Your task to perform on an android device: turn on improve location accuracy Image 0: 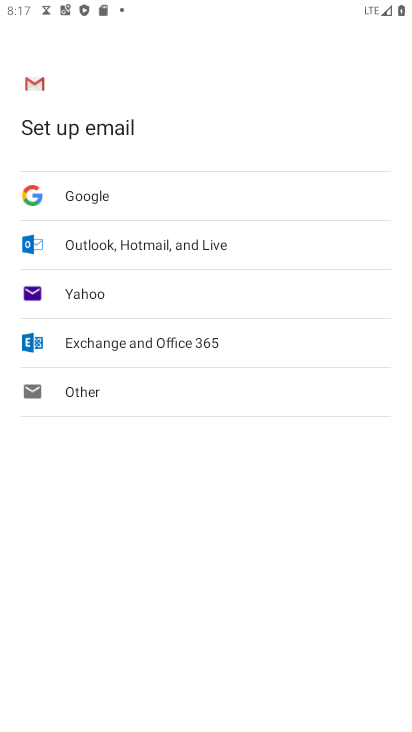
Step 0: press back button
Your task to perform on an android device: turn on improve location accuracy Image 1: 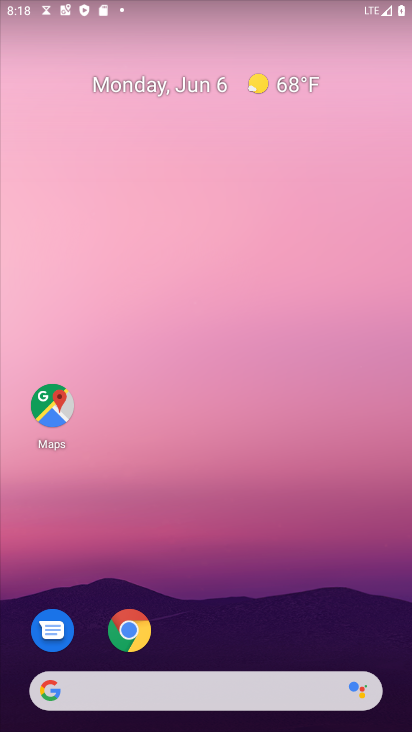
Step 1: drag from (251, 609) to (232, 63)
Your task to perform on an android device: turn on improve location accuracy Image 2: 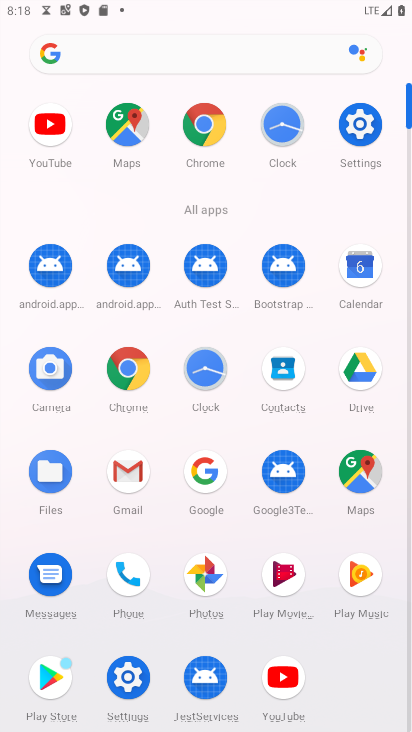
Step 2: click (358, 125)
Your task to perform on an android device: turn on improve location accuracy Image 3: 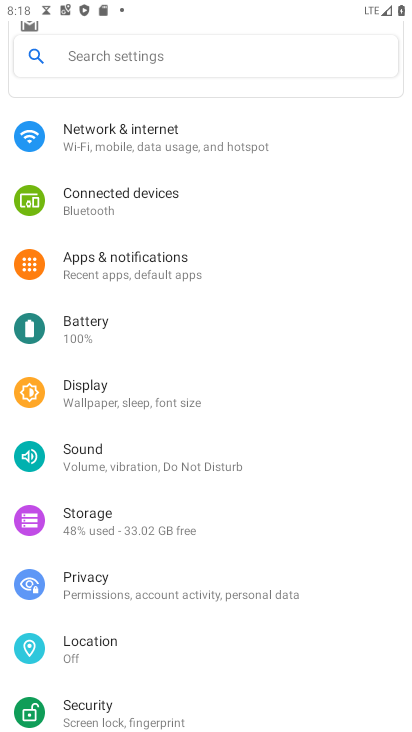
Step 3: drag from (151, 432) to (217, 324)
Your task to perform on an android device: turn on improve location accuracy Image 4: 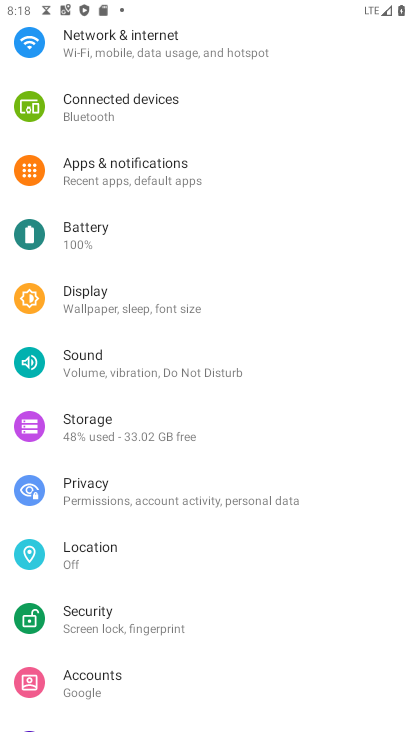
Step 4: click (116, 542)
Your task to perform on an android device: turn on improve location accuracy Image 5: 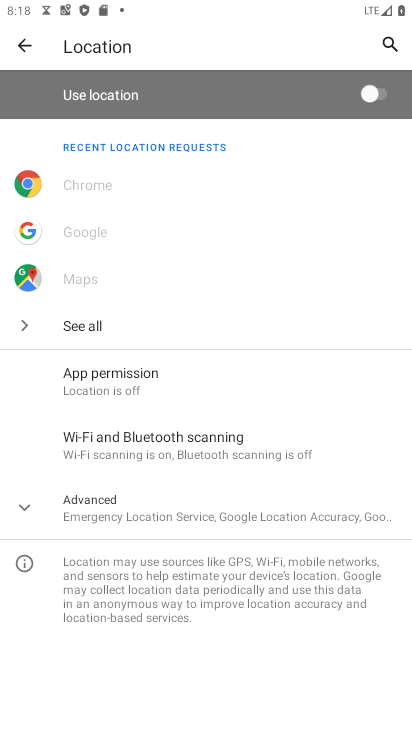
Step 5: click (166, 507)
Your task to perform on an android device: turn on improve location accuracy Image 6: 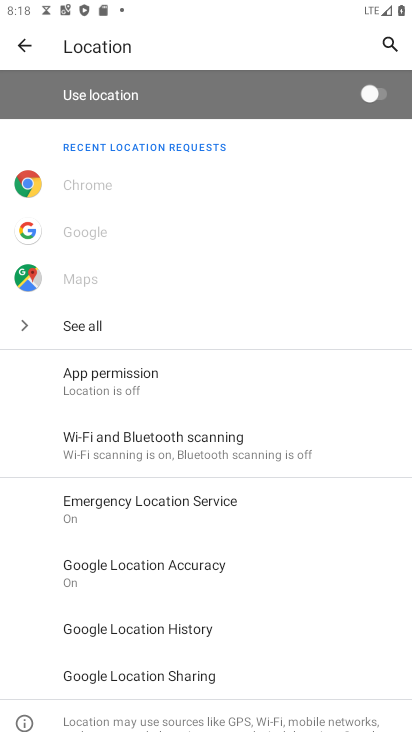
Step 6: drag from (164, 589) to (229, 477)
Your task to perform on an android device: turn on improve location accuracy Image 7: 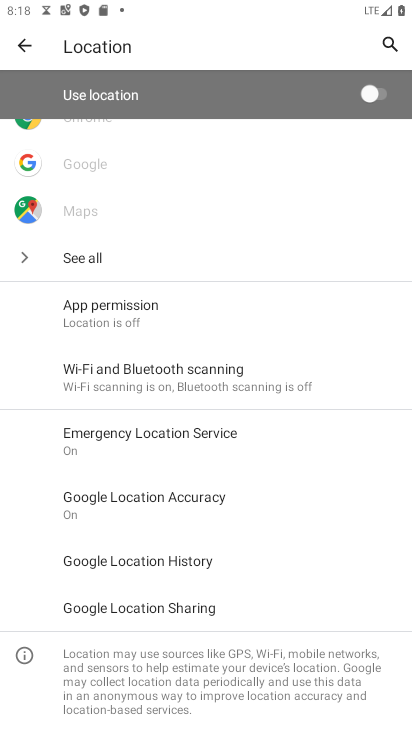
Step 7: click (204, 498)
Your task to perform on an android device: turn on improve location accuracy Image 8: 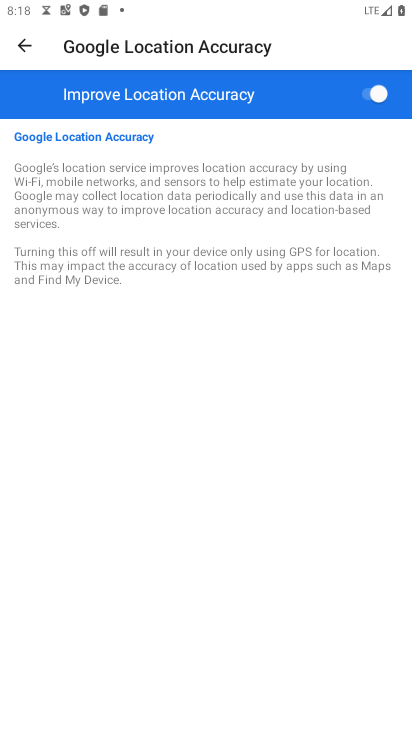
Step 8: task complete